Your task to perform on an android device: Show me the alarms in the clock app Image 0: 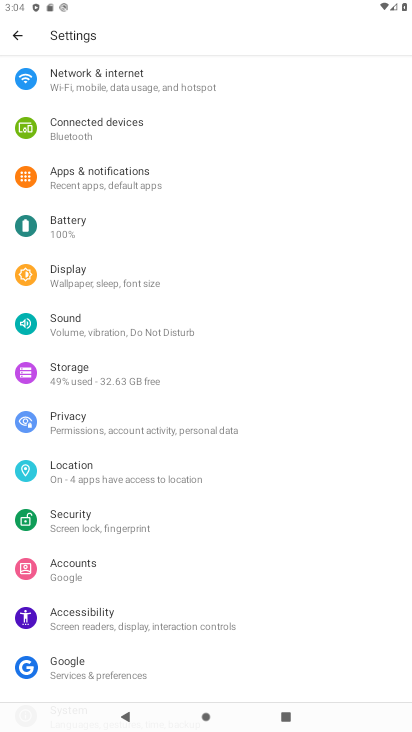
Step 0: press home button
Your task to perform on an android device: Show me the alarms in the clock app Image 1: 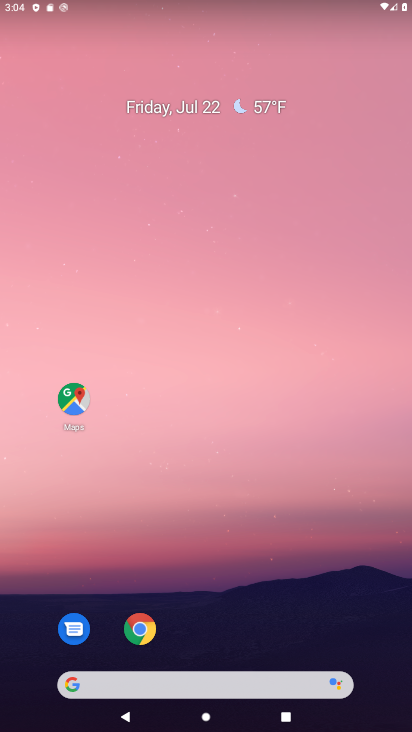
Step 1: drag from (263, 641) to (247, 187)
Your task to perform on an android device: Show me the alarms in the clock app Image 2: 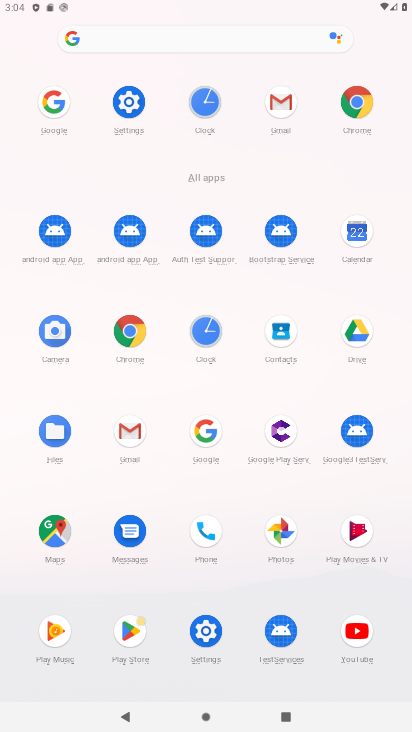
Step 2: click (204, 107)
Your task to perform on an android device: Show me the alarms in the clock app Image 3: 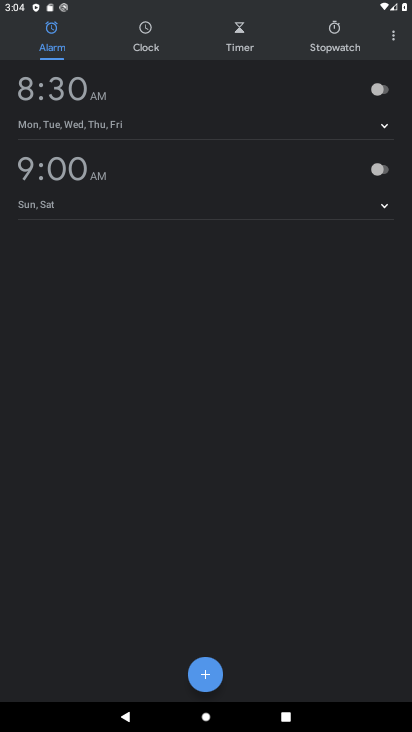
Step 3: task complete